Your task to perform on an android device: Go to ESPN.com Image 0: 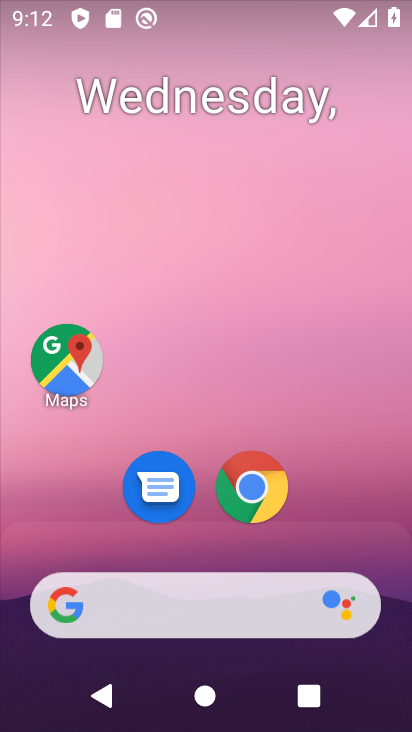
Step 0: click (238, 495)
Your task to perform on an android device: Go to ESPN.com Image 1: 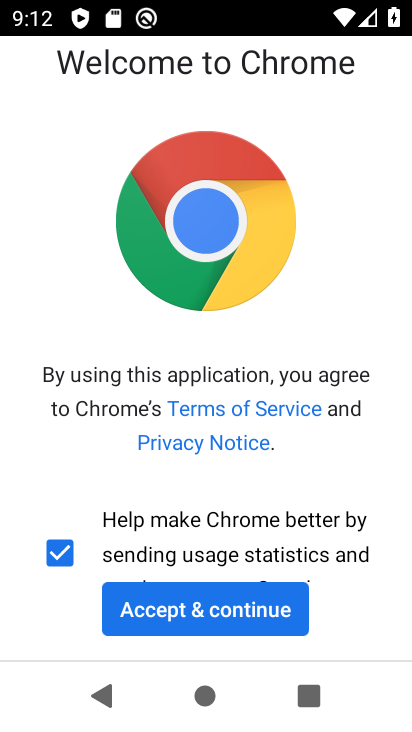
Step 1: click (152, 608)
Your task to perform on an android device: Go to ESPN.com Image 2: 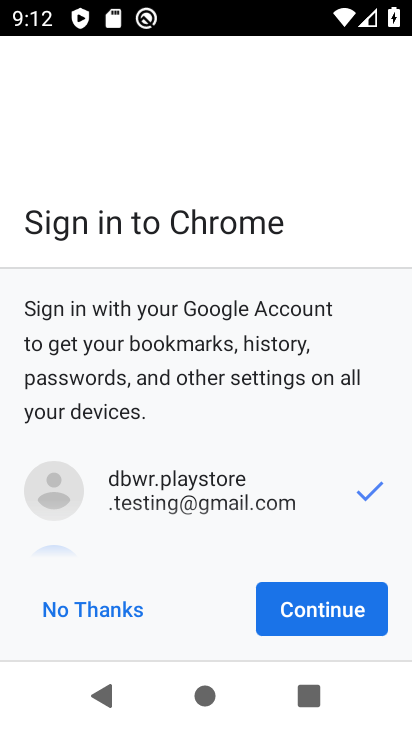
Step 2: click (310, 612)
Your task to perform on an android device: Go to ESPN.com Image 3: 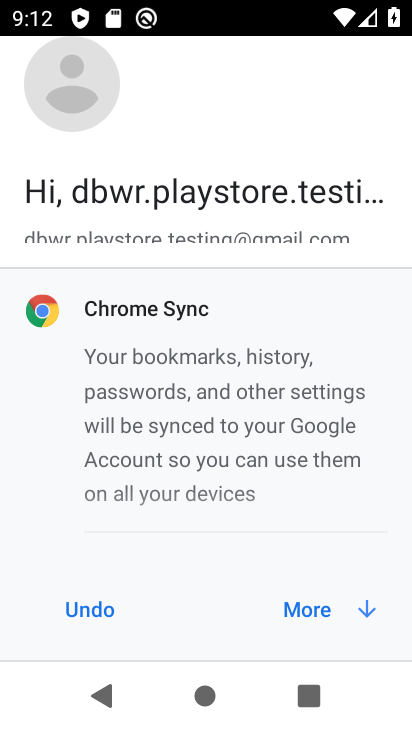
Step 3: click (313, 607)
Your task to perform on an android device: Go to ESPN.com Image 4: 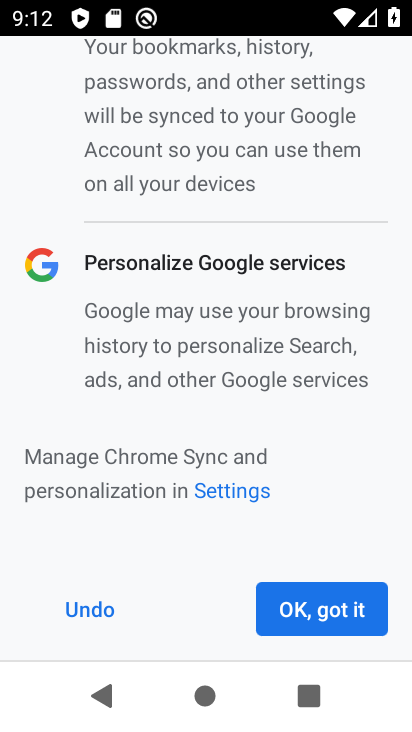
Step 4: click (313, 607)
Your task to perform on an android device: Go to ESPN.com Image 5: 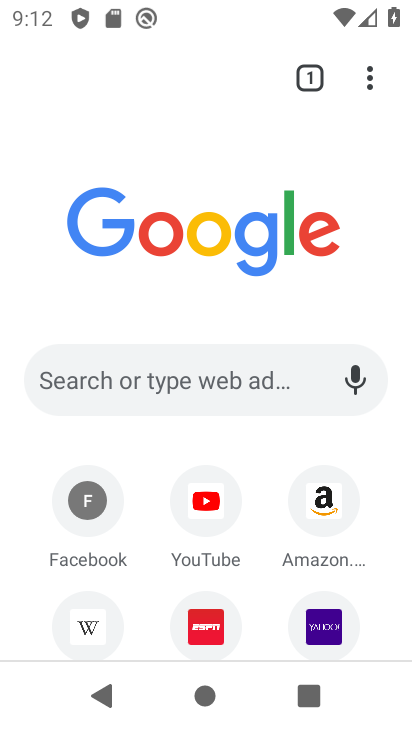
Step 5: drag from (262, 578) to (298, 285)
Your task to perform on an android device: Go to ESPN.com Image 6: 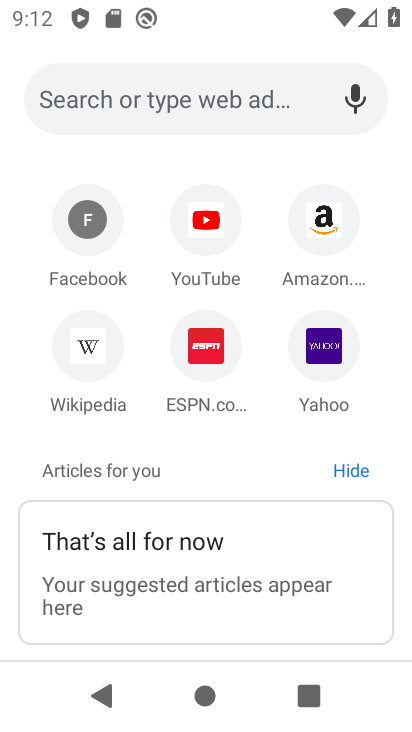
Step 6: click (203, 331)
Your task to perform on an android device: Go to ESPN.com Image 7: 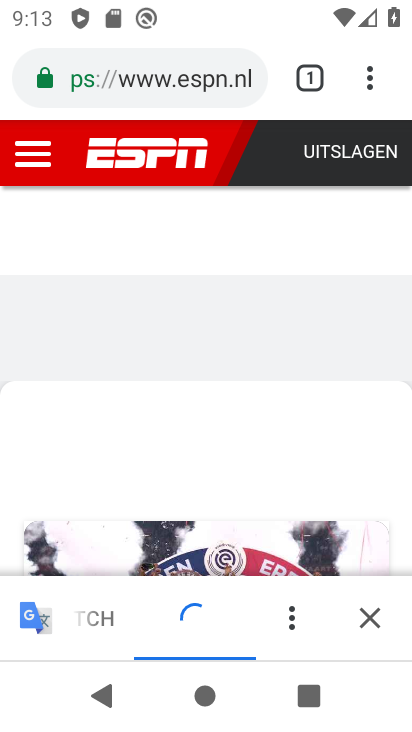
Step 7: task complete